Your task to perform on an android device: toggle javascript in the chrome app Image 0: 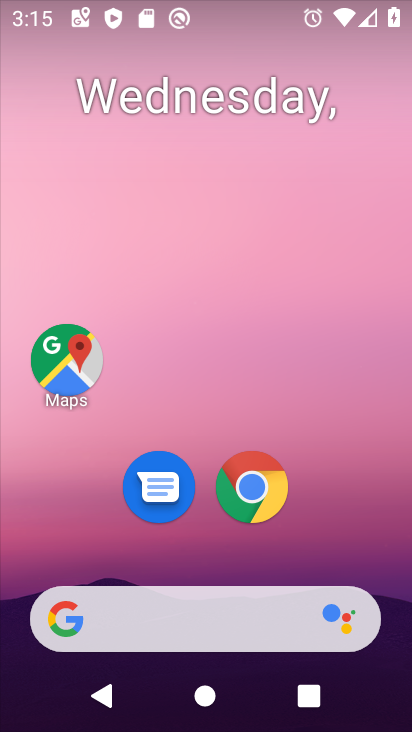
Step 0: drag from (334, 539) to (353, 253)
Your task to perform on an android device: toggle javascript in the chrome app Image 1: 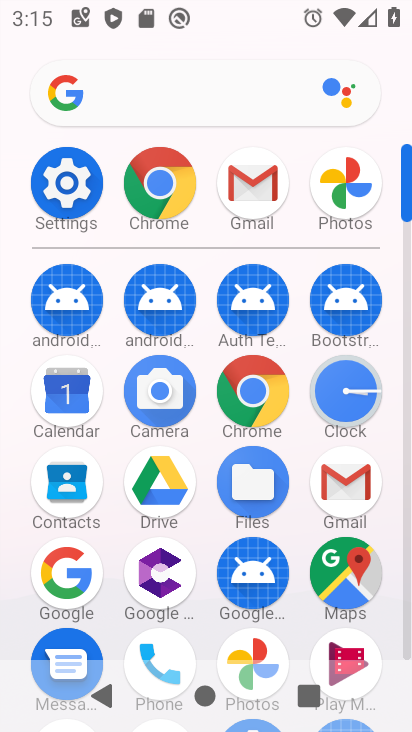
Step 1: click (281, 405)
Your task to perform on an android device: toggle javascript in the chrome app Image 2: 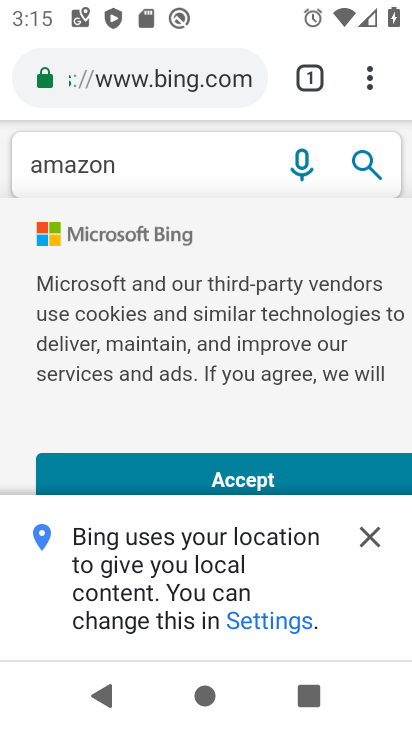
Step 2: click (371, 89)
Your task to perform on an android device: toggle javascript in the chrome app Image 3: 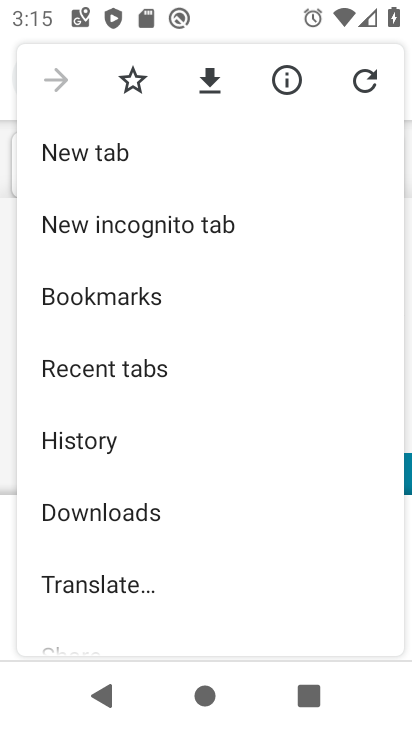
Step 3: drag from (283, 476) to (293, 344)
Your task to perform on an android device: toggle javascript in the chrome app Image 4: 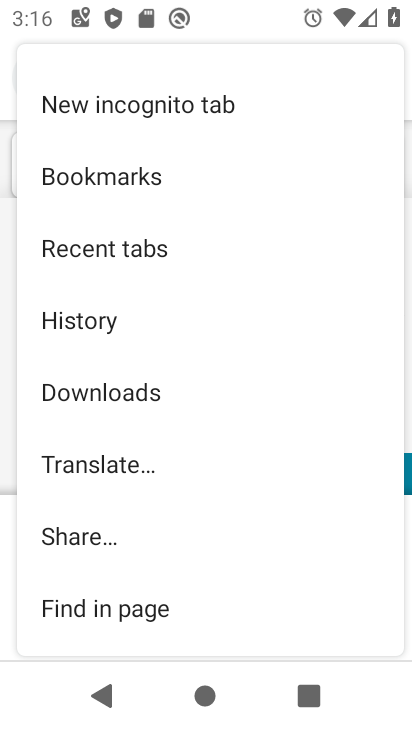
Step 4: drag from (303, 503) to (300, 369)
Your task to perform on an android device: toggle javascript in the chrome app Image 5: 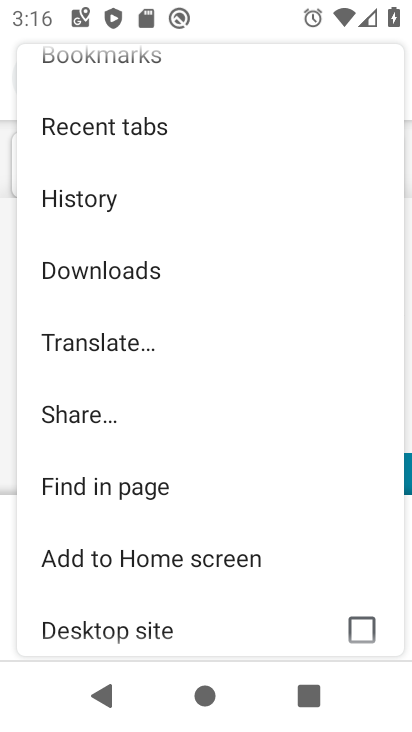
Step 5: drag from (309, 520) to (313, 373)
Your task to perform on an android device: toggle javascript in the chrome app Image 6: 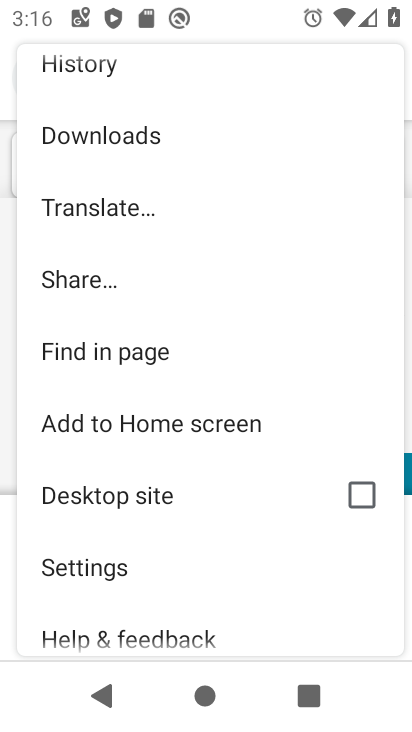
Step 6: drag from (279, 536) to (276, 351)
Your task to perform on an android device: toggle javascript in the chrome app Image 7: 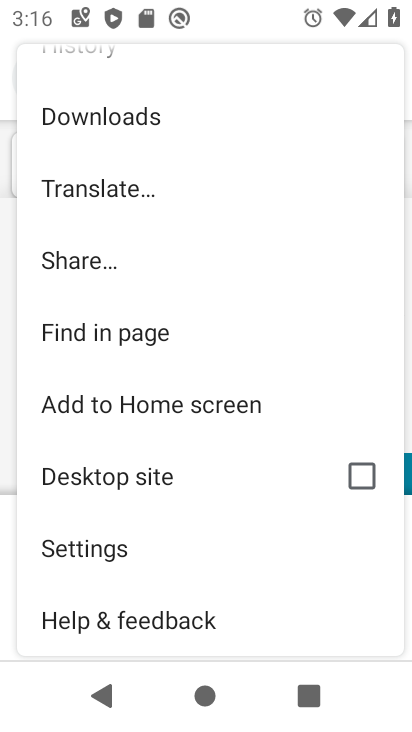
Step 7: click (133, 557)
Your task to perform on an android device: toggle javascript in the chrome app Image 8: 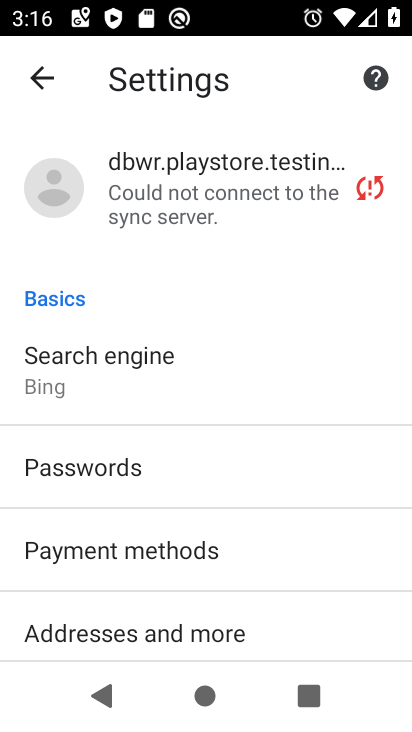
Step 8: drag from (304, 531) to (295, 389)
Your task to perform on an android device: toggle javascript in the chrome app Image 9: 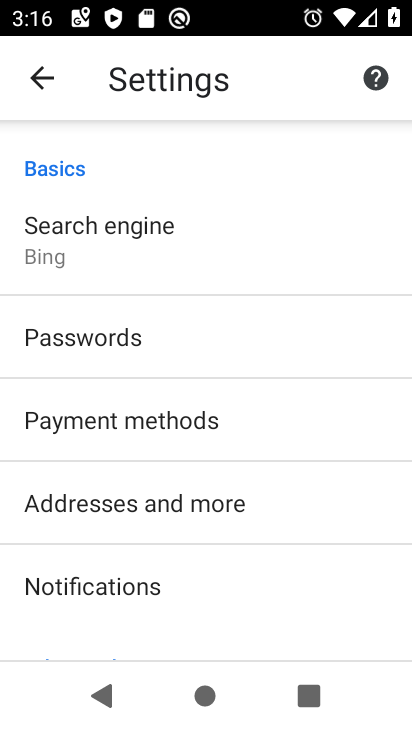
Step 9: drag from (319, 574) to (319, 462)
Your task to perform on an android device: toggle javascript in the chrome app Image 10: 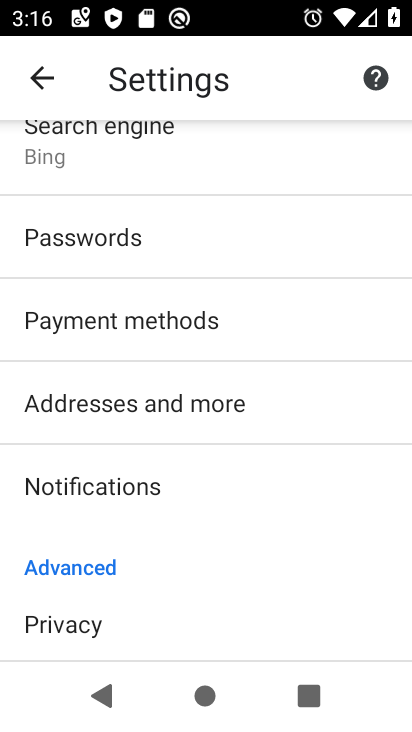
Step 10: drag from (337, 554) to (323, 372)
Your task to perform on an android device: toggle javascript in the chrome app Image 11: 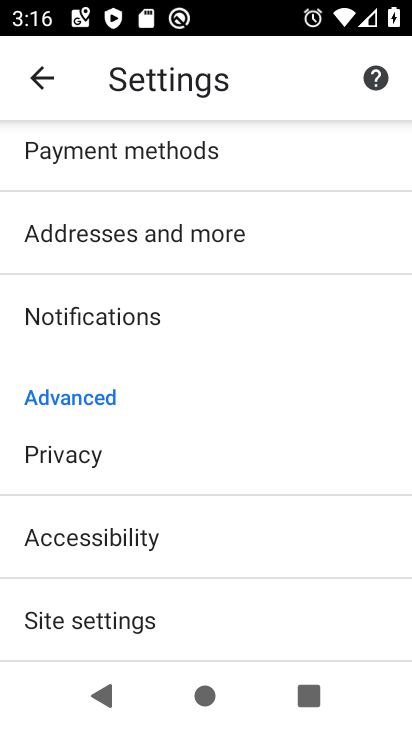
Step 11: drag from (343, 473) to (336, 312)
Your task to perform on an android device: toggle javascript in the chrome app Image 12: 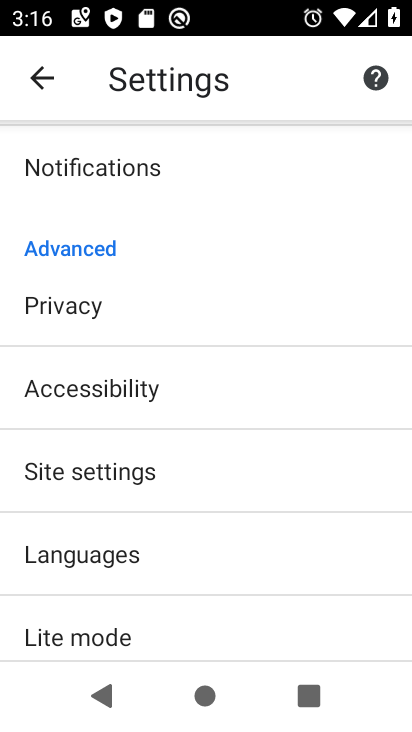
Step 12: drag from (327, 522) to (320, 264)
Your task to perform on an android device: toggle javascript in the chrome app Image 13: 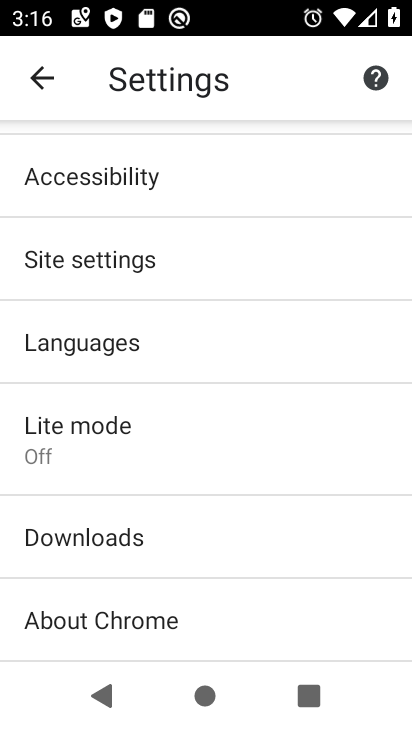
Step 13: drag from (309, 292) to (293, 397)
Your task to perform on an android device: toggle javascript in the chrome app Image 14: 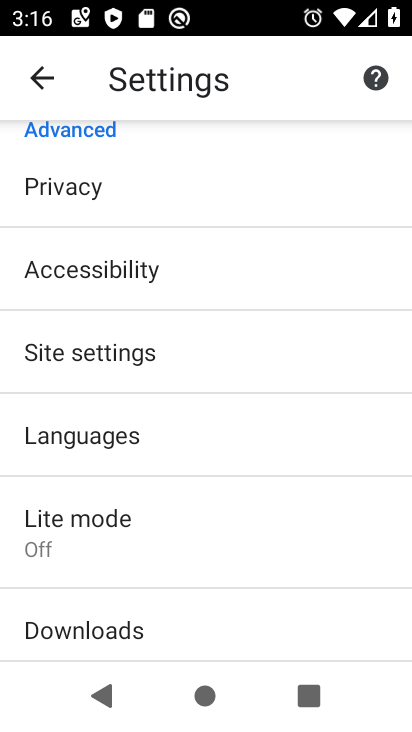
Step 14: drag from (267, 270) to (254, 399)
Your task to perform on an android device: toggle javascript in the chrome app Image 15: 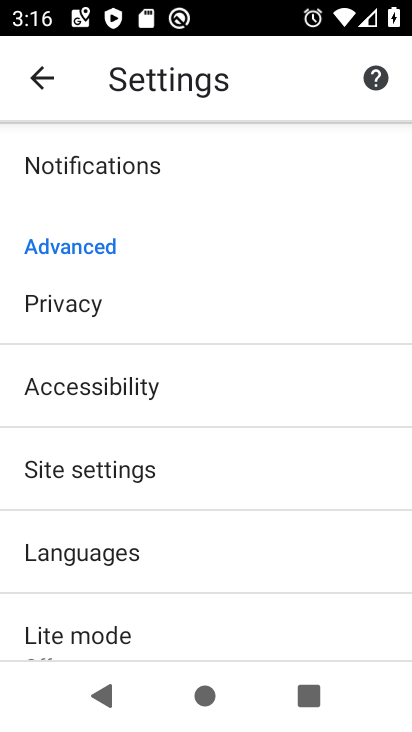
Step 15: click (233, 483)
Your task to perform on an android device: toggle javascript in the chrome app Image 16: 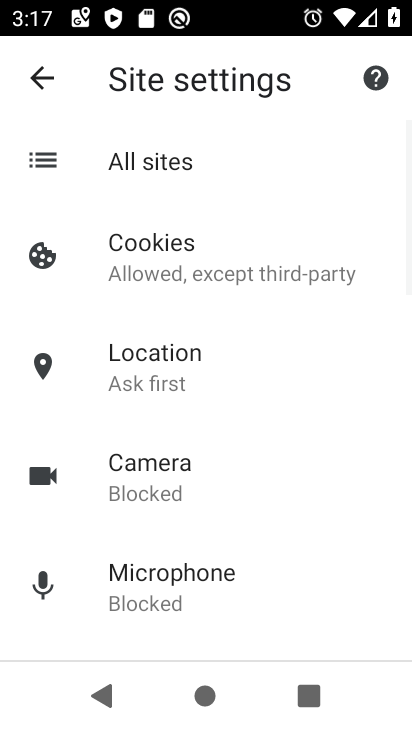
Step 16: drag from (303, 510) to (304, 390)
Your task to perform on an android device: toggle javascript in the chrome app Image 17: 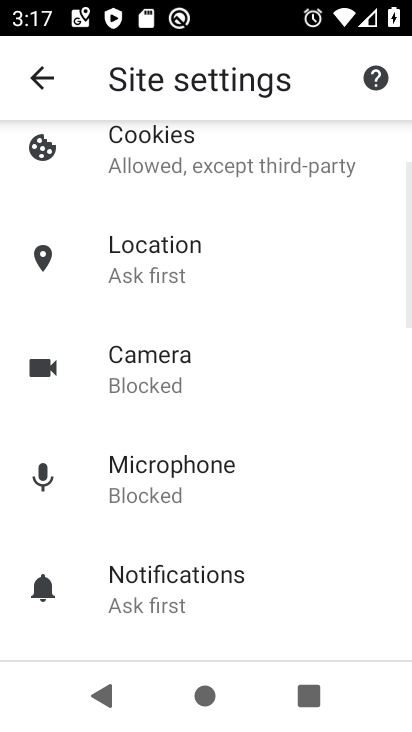
Step 17: drag from (308, 531) to (309, 390)
Your task to perform on an android device: toggle javascript in the chrome app Image 18: 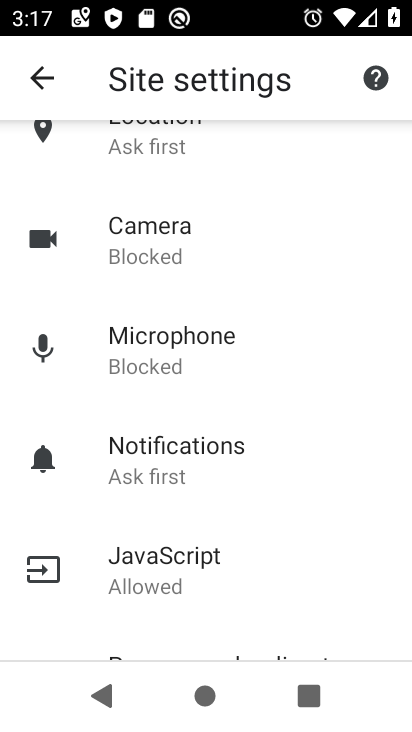
Step 18: click (254, 579)
Your task to perform on an android device: toggle javascript in the chrome app Image 19: 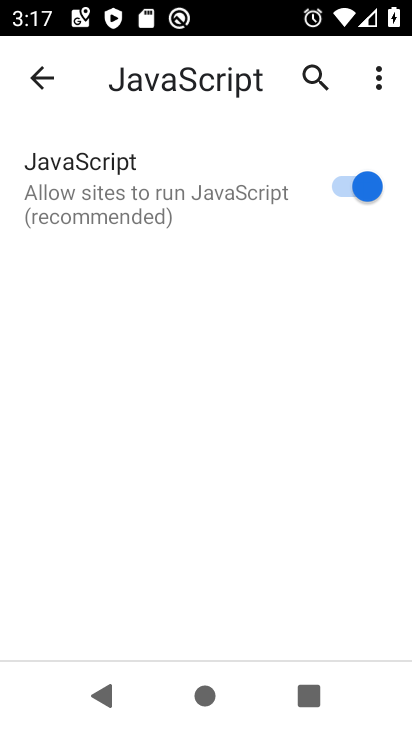
Step 19: click (358, 162)
Your task to perform on an android device: toggle javascript in the chrome app Image 20: 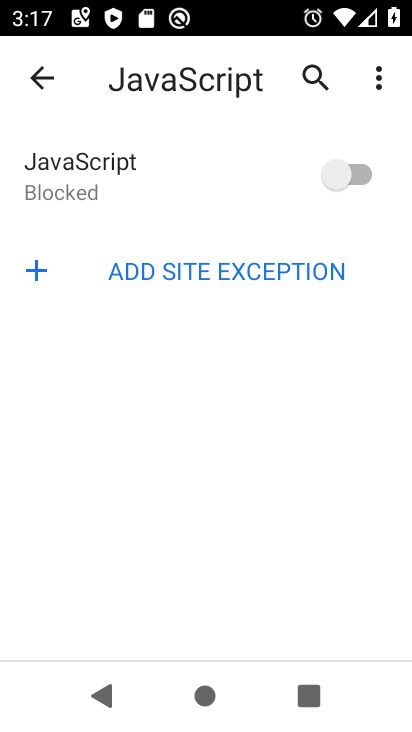
Step 20: task complete